Your task to perform on an android device: move a message to another label in the gmail app Image 0: 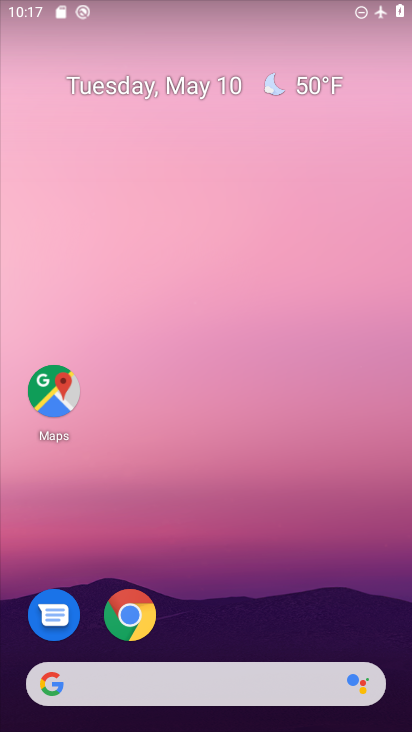
Step 0: drag from (386, 637) to (307, 140)
Your task to perform on an android device: move a message to another label in the gmail app Image 1: 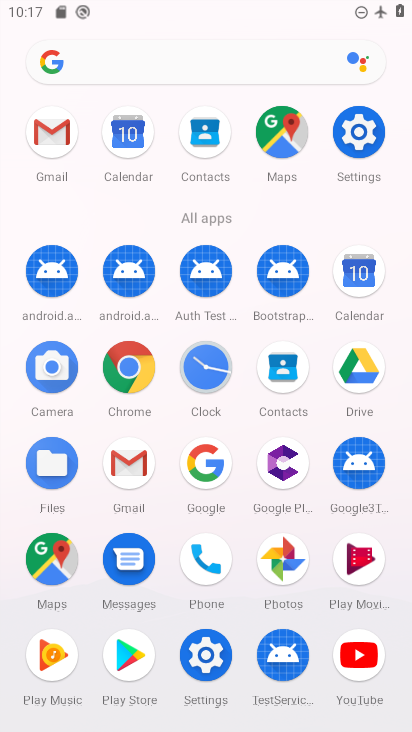
Step 1: click (127, 459)
Your task to perform on an android device: move a message to another label in the gmail app Image 2: 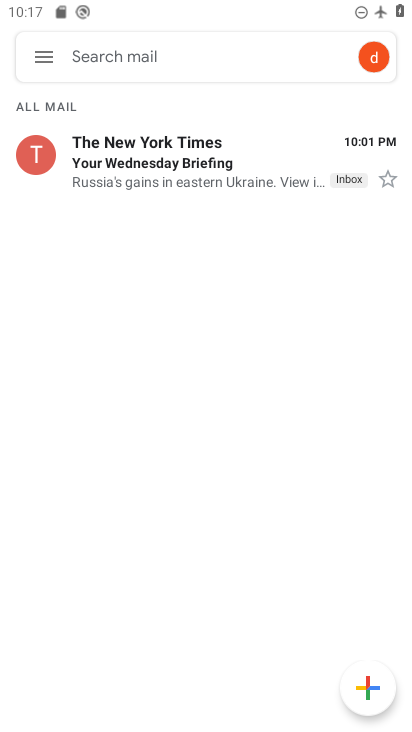
Step 2: click (166, 168)
Your task to perform on an android device: move a message to another label in the gmail app Image 3: 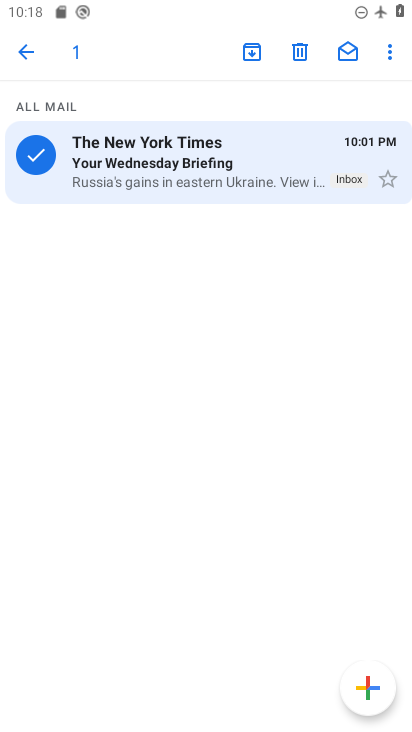
Step 3: click (393, 51)
Your task to perform on an android device: move a message to another label in the gmail app Image 4: 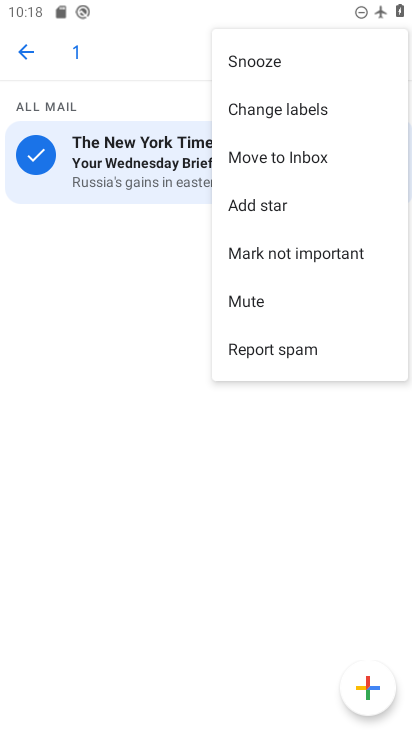
Step 4: click (266, 113)
Your task to perform on an android device: move a message to another label in the gmail app Image 5: 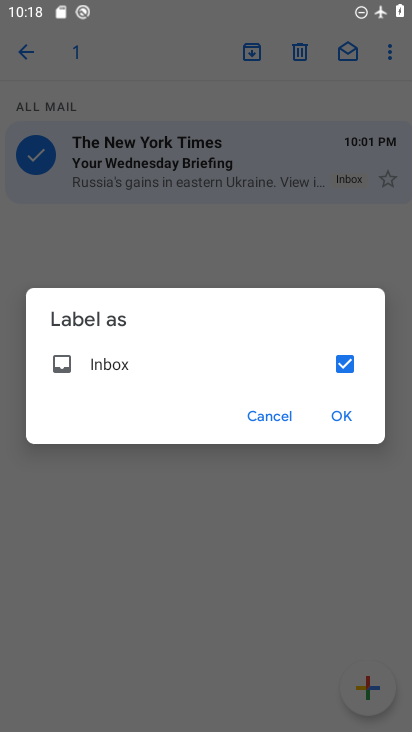
Step 5: click (342, 415)
Your task to perform on an android device: move a message to another label in the gmail app Image 6: 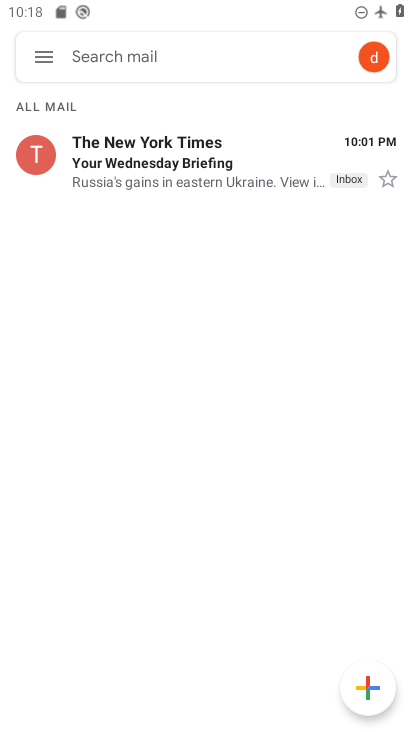
Step 6: task complete